Your task to perform on an android device: change the upload size in google photos Image 0: 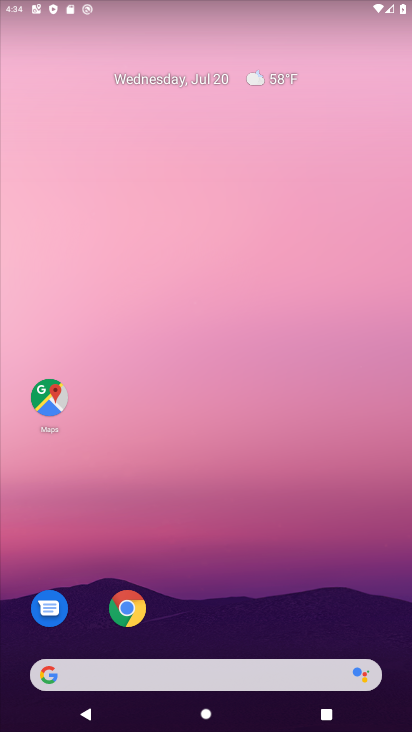
Step 0: drag from (194, 625) to (75, 130)
Your task to perform on an android device: change the upload size in google photos Image 1: 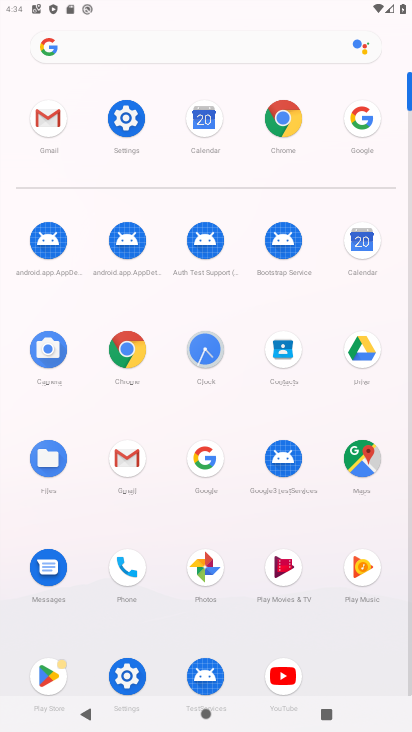
Step 1: click (200, 564)
Your task to perform on an android device: change the upload size in google photos Image 2: 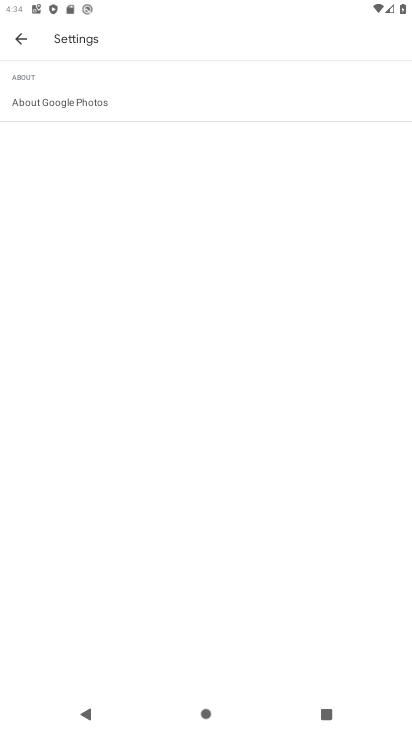
Step 2: click (18, 42)
Your task to perform on an android device: change the upload size in google photos Image 3: 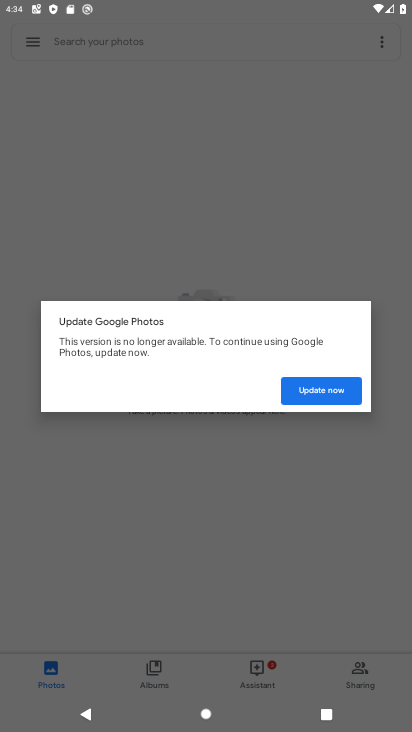
Step 3: click (355, 496)
Your task to perform on an android device: change the upload size in google photos Image 4: 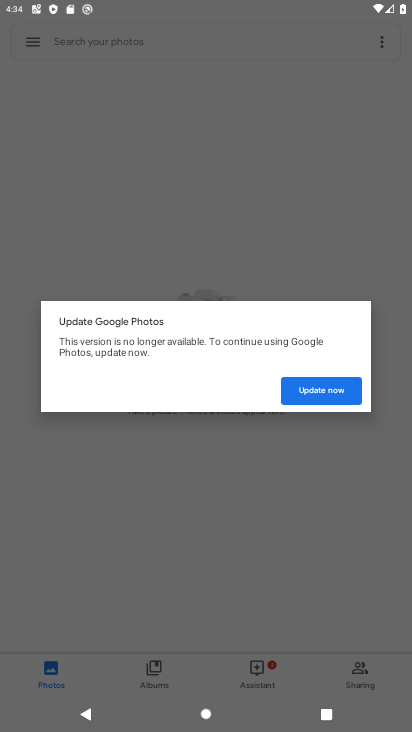
Step 4: click (349, 399)
Your task to perform on an android device: change the upload size in google photos Image 5: 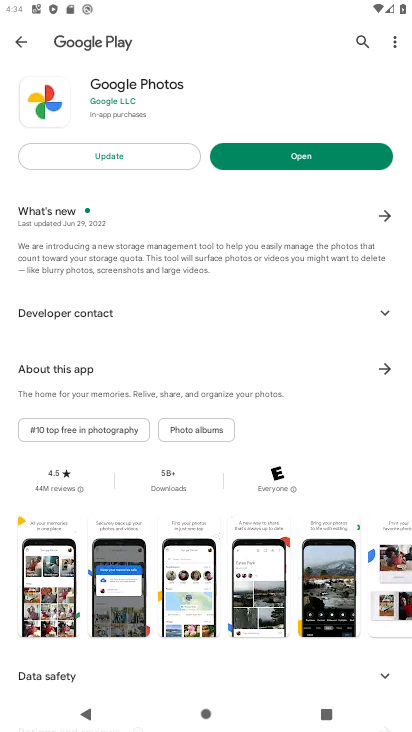
Step 5: press home button
Your task to perform on an android device: change the upload size in google photos Image 6: 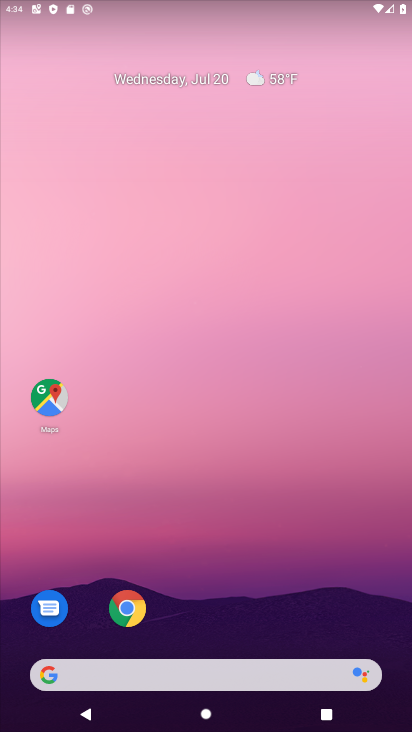
Step 6: drag from (218, 631) to (131, 18)
Your task to perform on an android device: change the upload size in google photos Image 7: 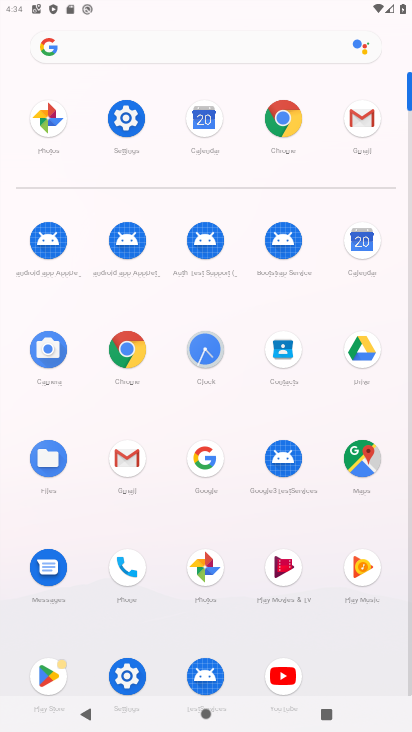
Step 7: click (207, 560)
Your task to perform on an android device: change the upload size in google photos Image 8: 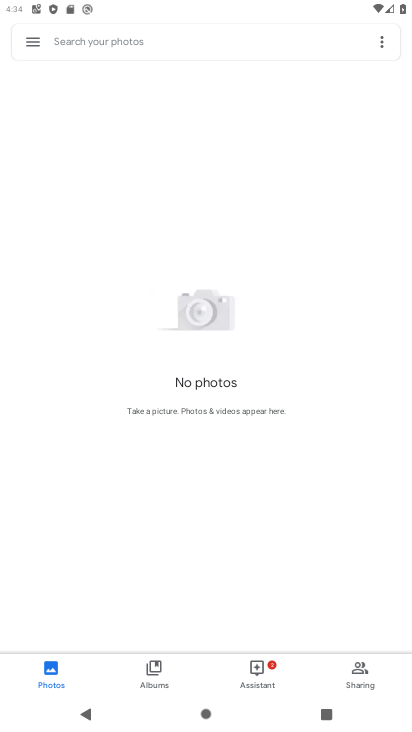
Step 8: click (26, 45)
Your task to perform on an android device: change the upload size in google photos Image 9: 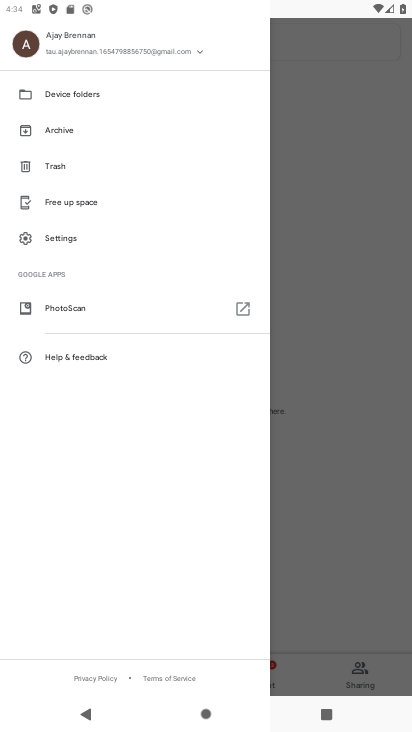
Step 9: click (42, 236)
Your task to perform on an android device: change the upload size in google photos Image 10: 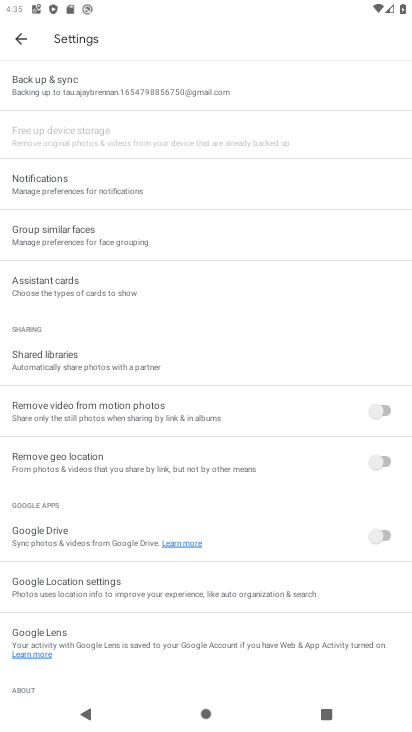
Step 10: click (45, 88)
Your task to perform on an android device: change the upload size in google photos Image 11: 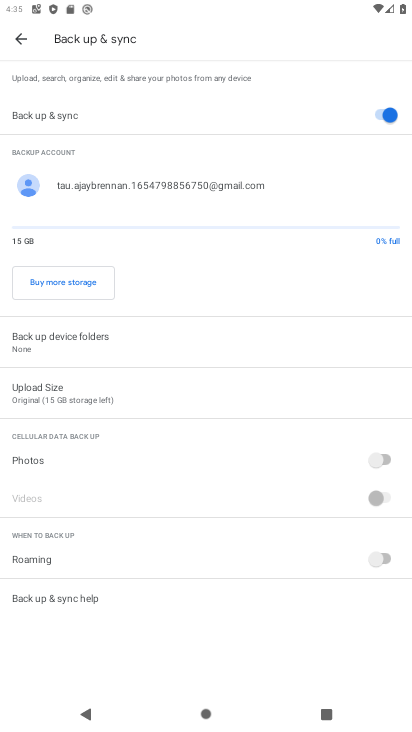
Step 11: click (115, 386)
Your task to perform on an android device: change the upload size in google photos Image 12: 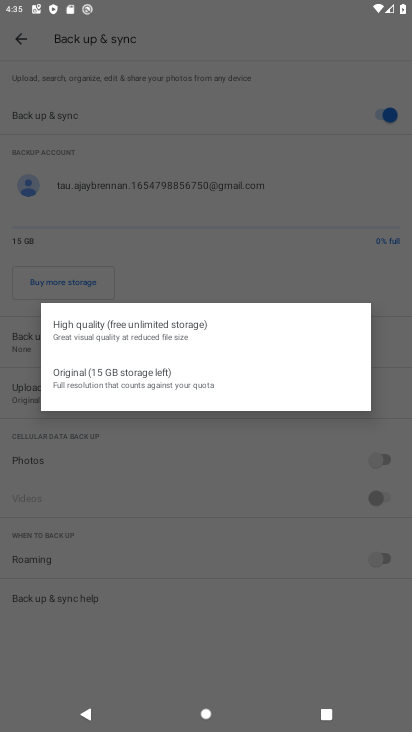
Step 12: click (97, 315)
Your task to perform on an android device: change the upload size in google photos Image 13: 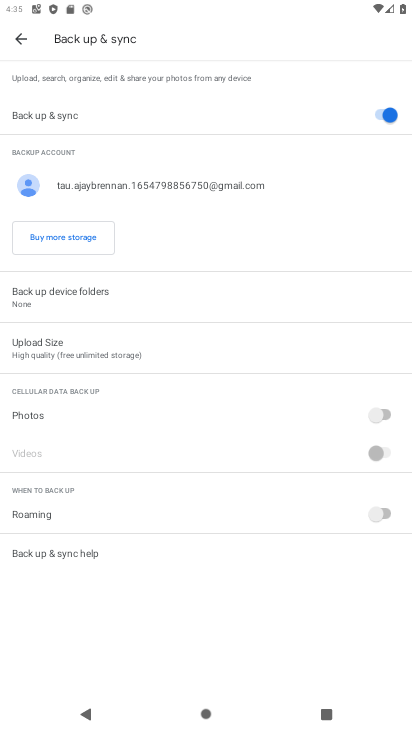
Step 13: task complete